Your task to perform on an android device: turn off notifications settings in the gmail app Image 0: 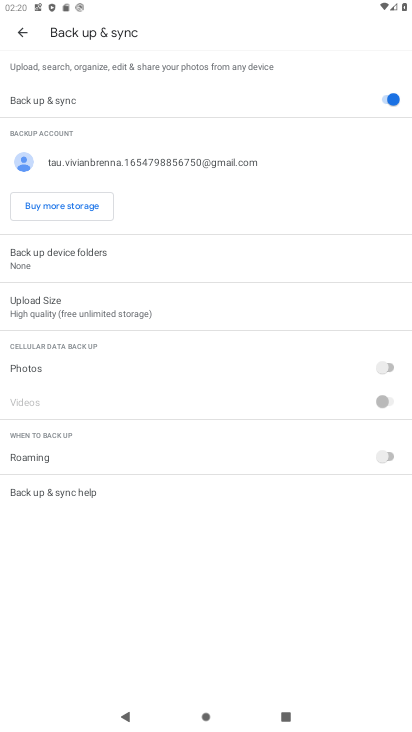
Step 0: press home button
Your task to perform on an android device: turn off notifications settings in the gmail app Image 1: 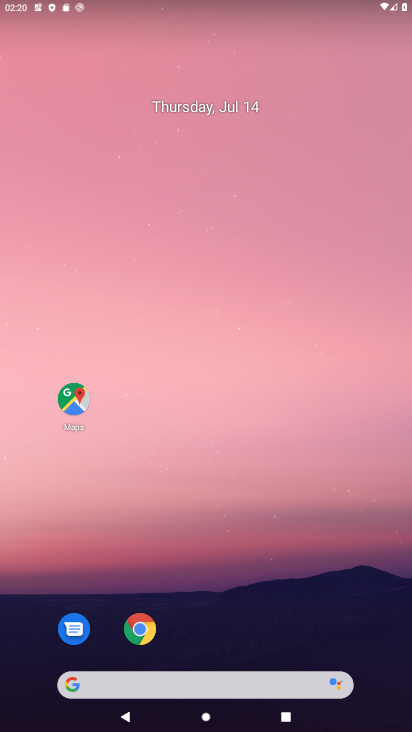
Step 1: drag from (210, 83) to (261, 6)
Your task to perform on an android device: turn off notifications settings in the gmail app Image 2: 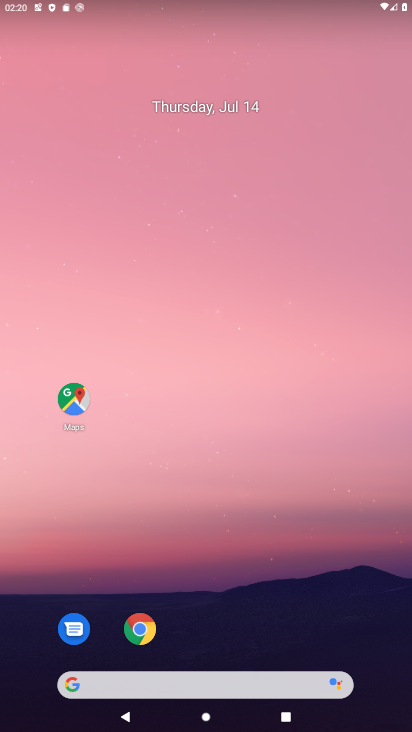
Step 2: drag from (204, 588) to (255, 39)
Your task to perform on an android device: turn off notifications settings in the gmail app Image 3: 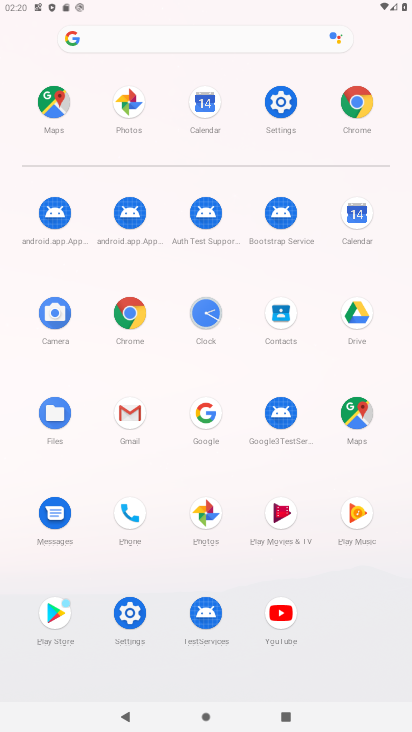
Step 3: click (136, 424)
Your task to perform on an android device: turn off notifications settings in the gmail app Image 4: 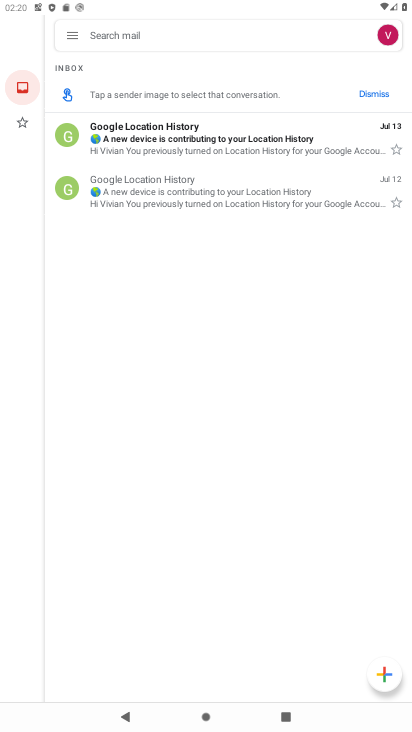
Step 4: click (73, 41)
Your task to perform on an android device: turn off notifications settings in the gmail app Image 5: 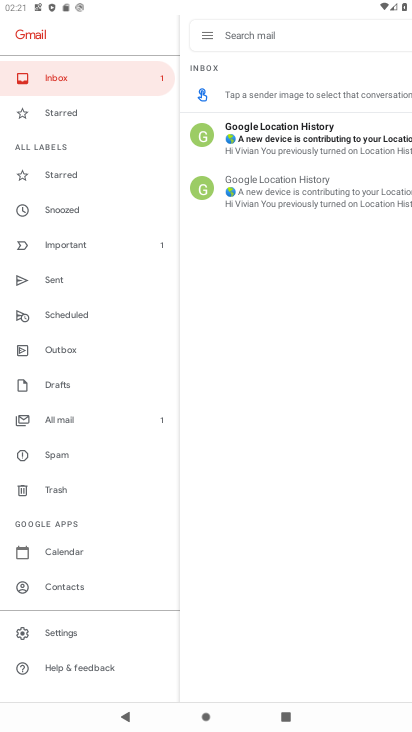
Step 5: click (75, 635)
Your task to perform on an android device: turn off notifications settings in the gmail app Image 6: 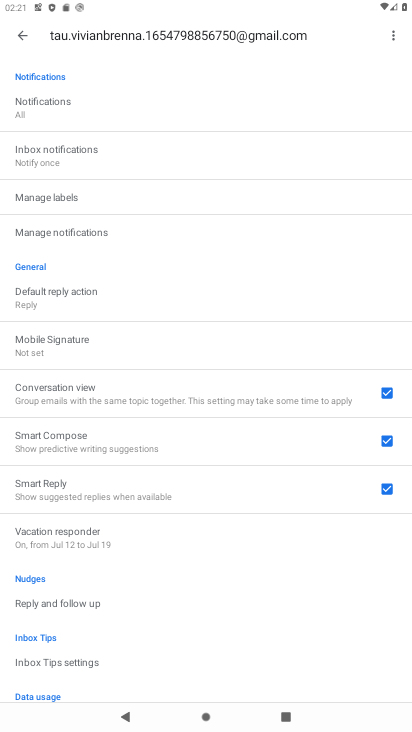
Step 6: click (78, 234)
Your task to perform on an android device: turn off notifications settings in the gmail app Image 7: 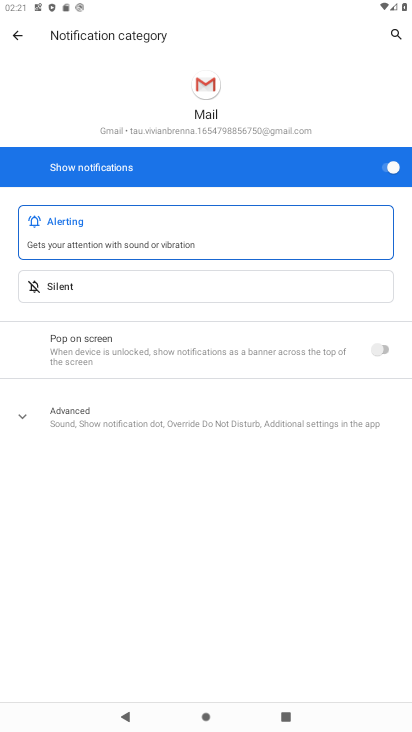
Step 7: click (382, 168)
Your task to perform on an android device: turn off notifications settings in the gmail app Image 8: 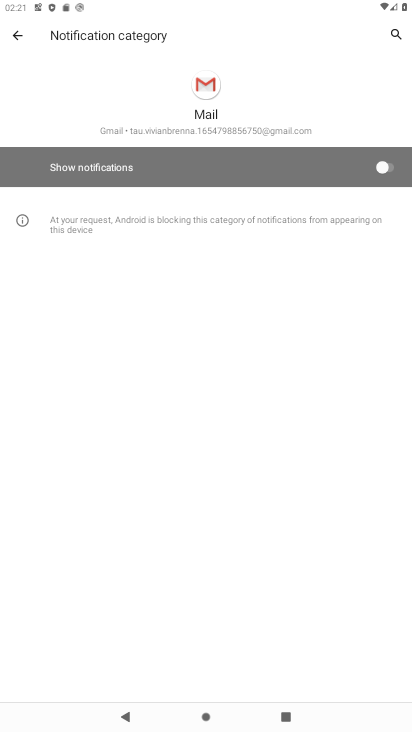
Step 8: task complete